Your task to perform on an android device: turn on wifi Image 0: 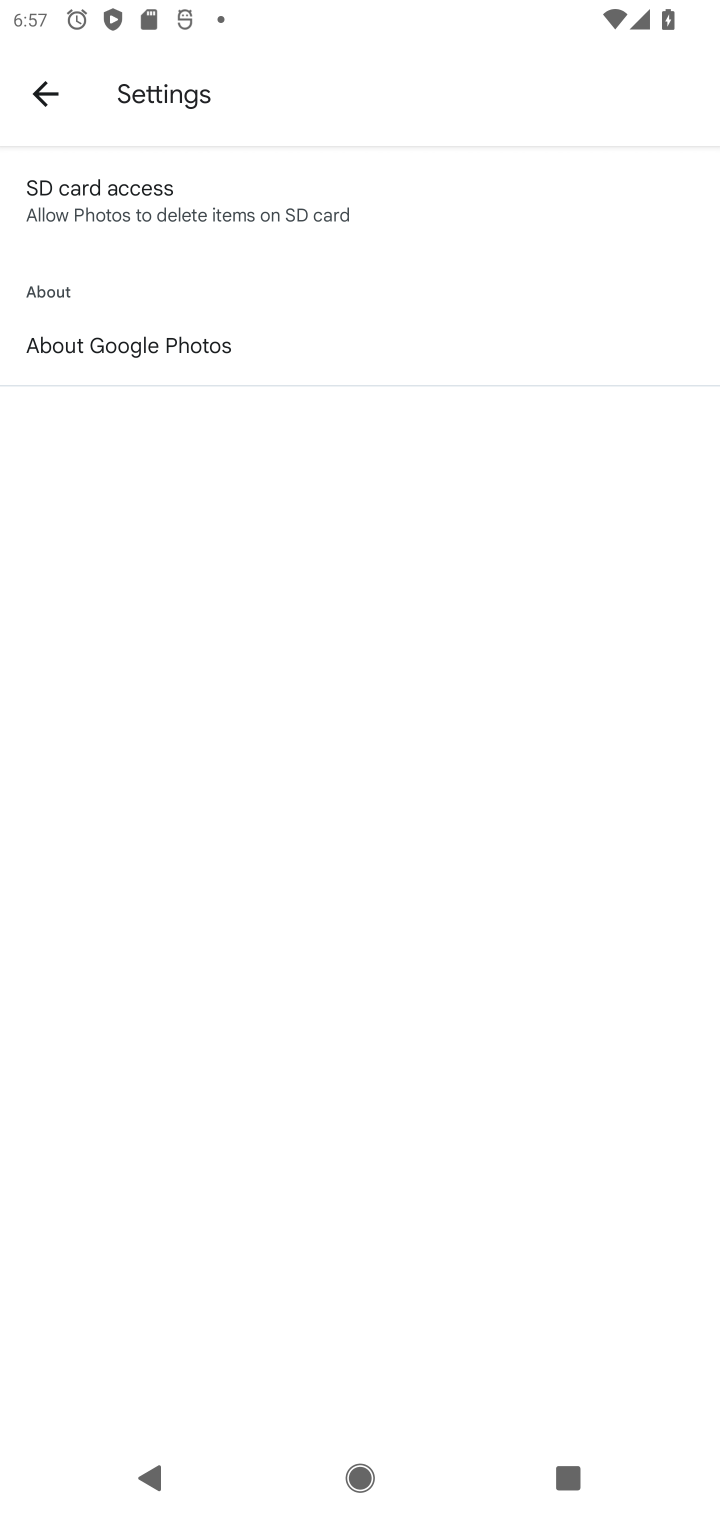
Step 0: drag from (565, 2) to (645, 1407)
Your task to perform on an android device: turn on wifi Image 1: 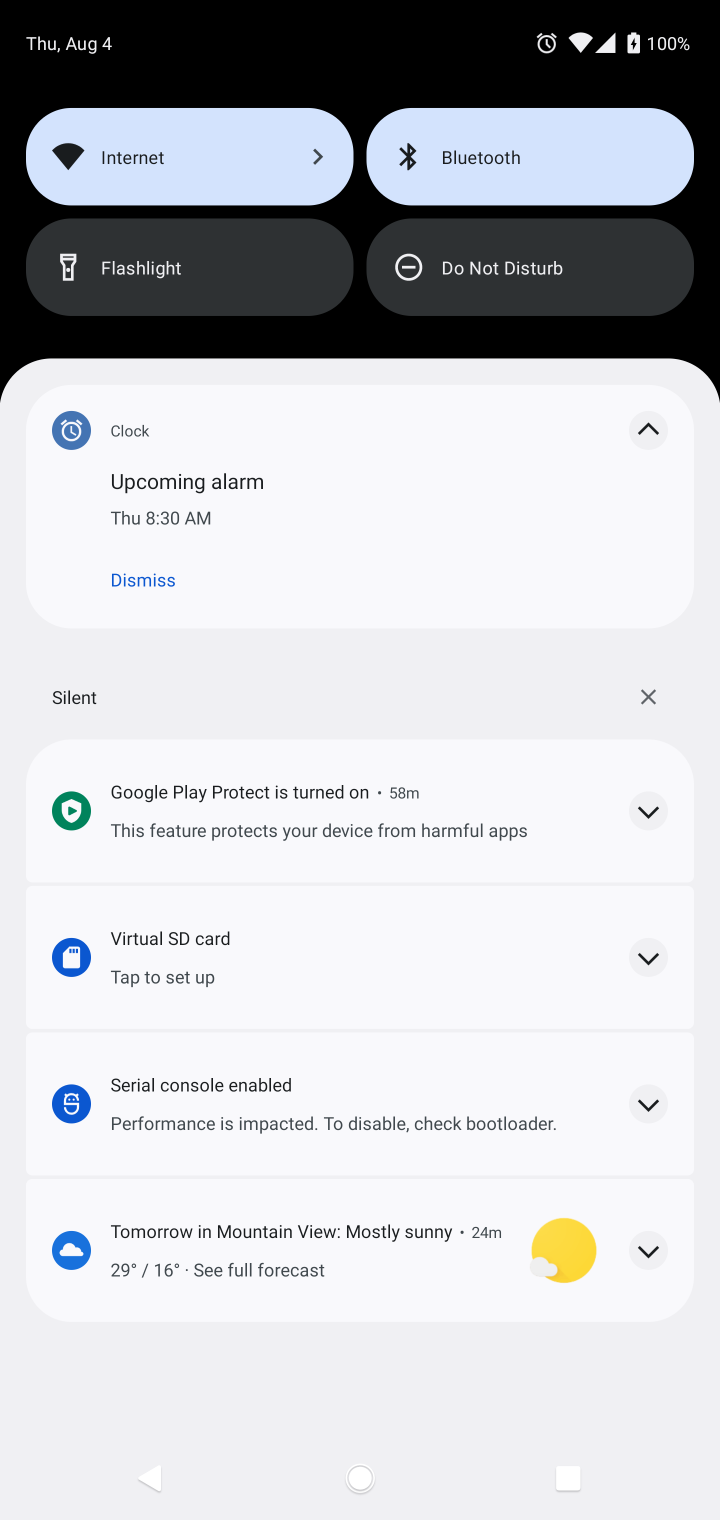
Step 1: task complete